Your task to perform on an android device: Search for "bose soundlink" on walmart, select the first entry, add it to the cart, then select checkout. Image 0: 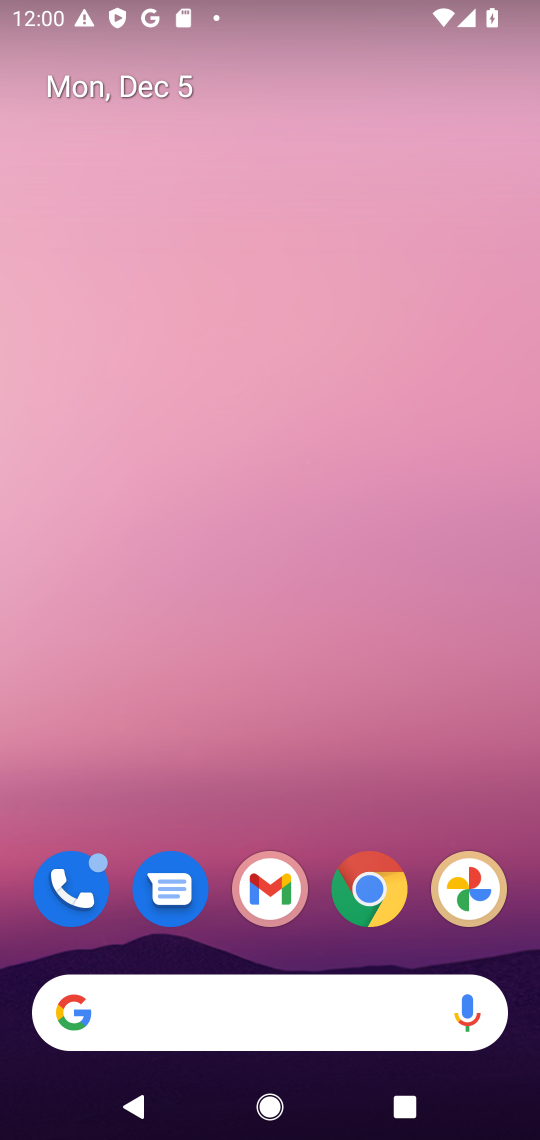
Step 0: click (371, 891)
Your task to perform on an android device: Search for "bose soundlink" on walmart, select the first entry, add it to the cart, then select checkout. Image 1: 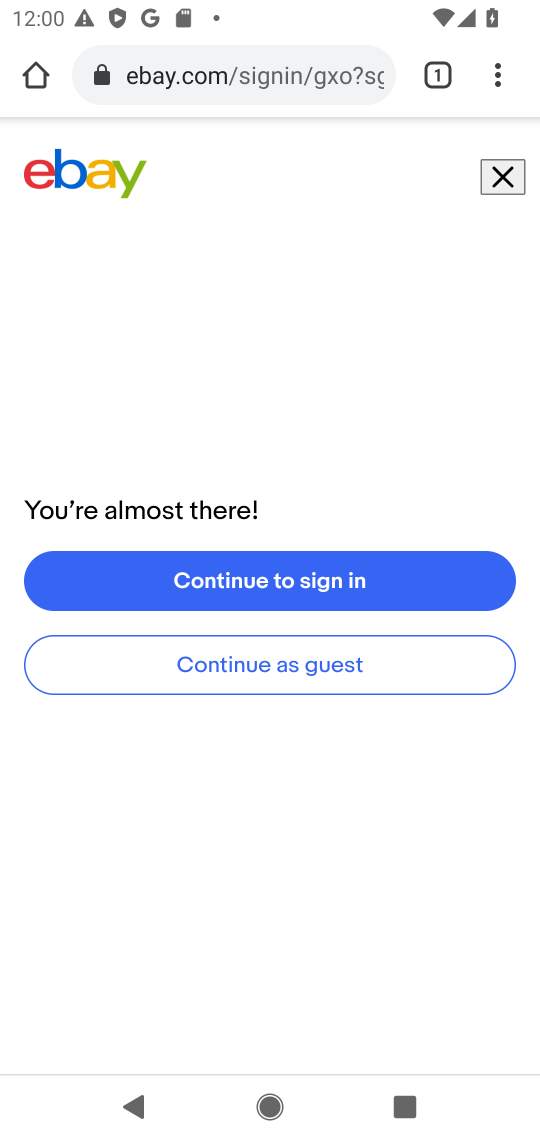
Step 1: click (306, 78)
Your task to perform on an android device: Search for "bose soundlink" on walmart, select the first entry, add it to the cart, then select checkout. Image 2: 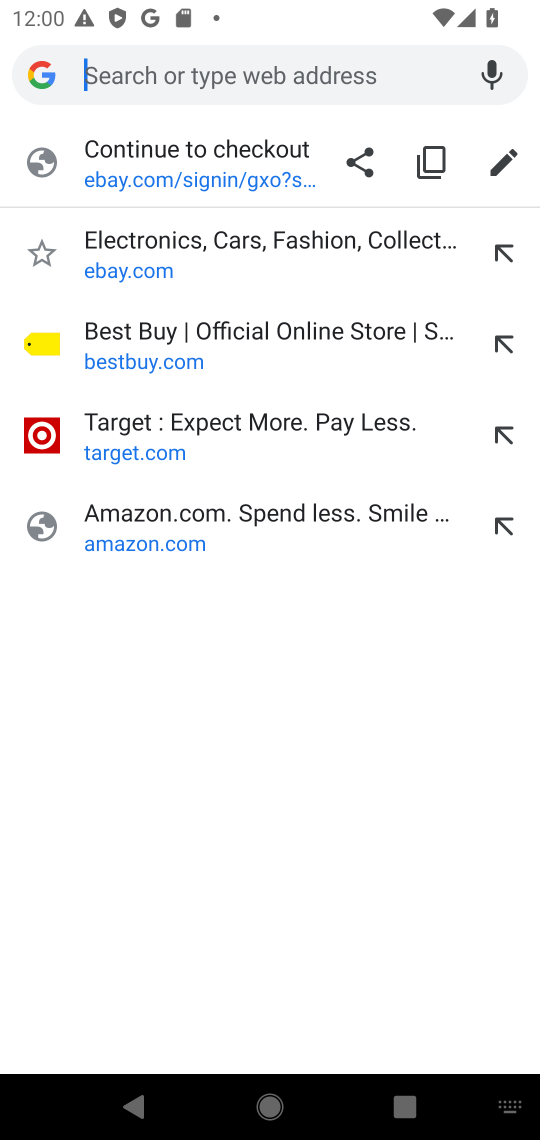
Step 2: type "walmart"
Your task to perform on an android device: Search for "bose soundlink" on walmart, select the first entry, add it to the cart, then select checkout. Image 3: 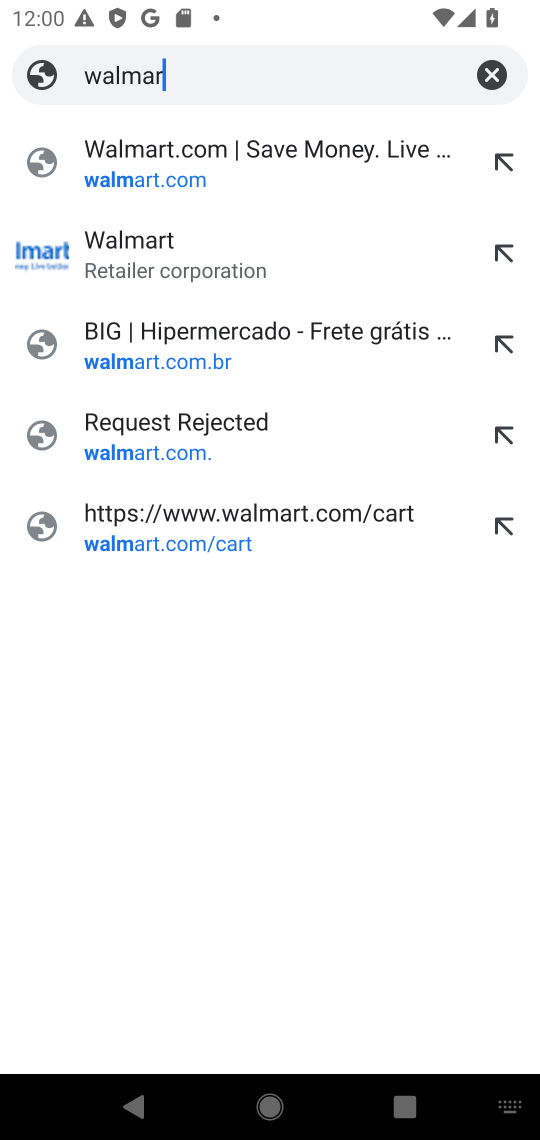
Step 3: press enter
Your task to perform on an android device: Search for "bose soundlink" on walmart, select the first entry, add it to the cart, then select checkout. Image 4: 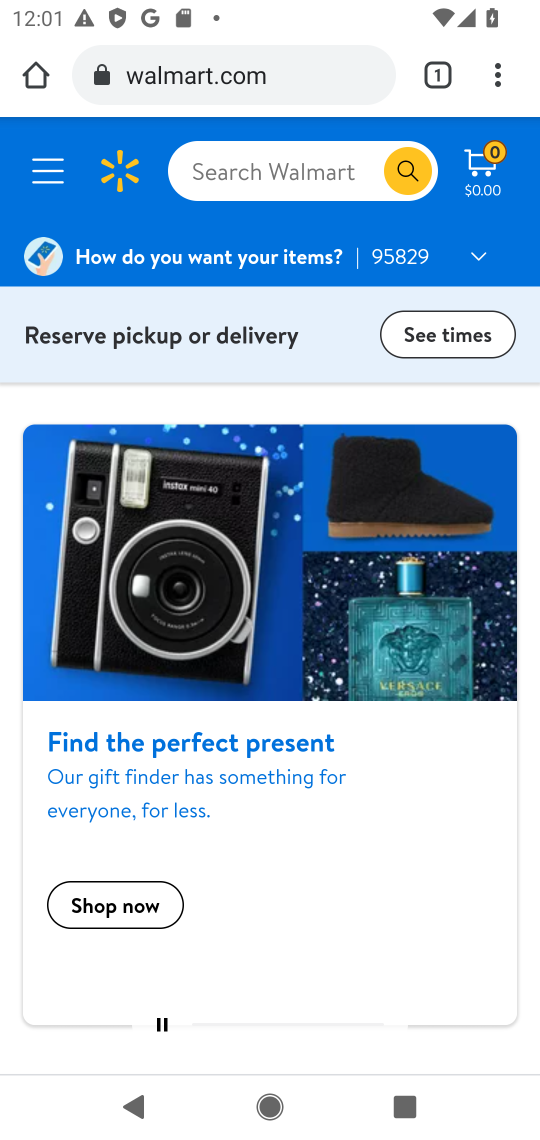
Step 4: click (308, 173)
Your task to perform on an android device: Search for "bose soundlink" on walmart, select the first entry, add it to the cart, then select checkout. Image 5: 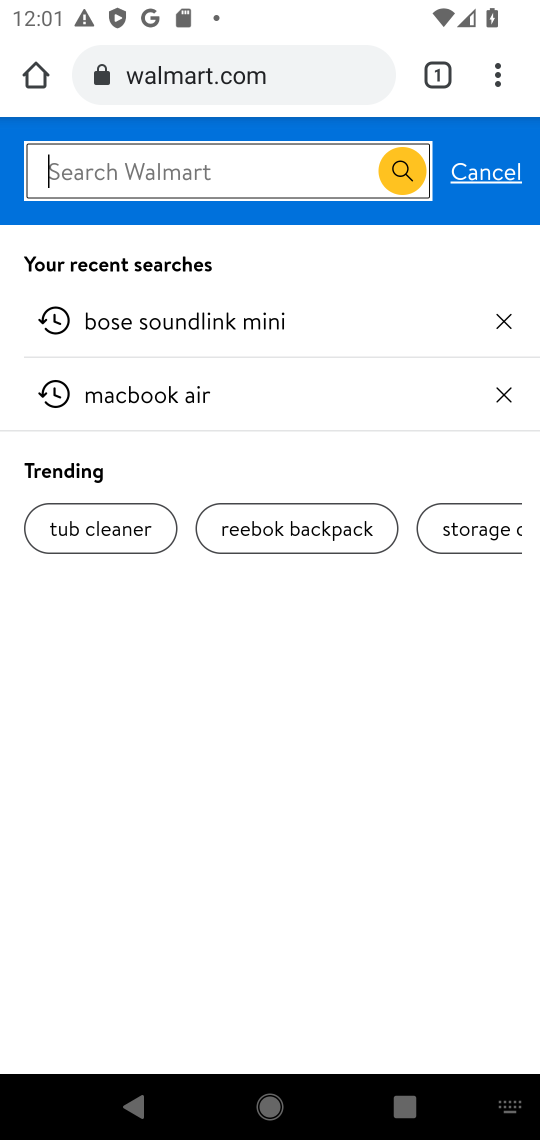
Step 5: type "bose soundlink"
Your task to perform on an android device: Search for "bose soundlink" on walmart, select the first entry, add it to the cart, then select checkout. Image 6: 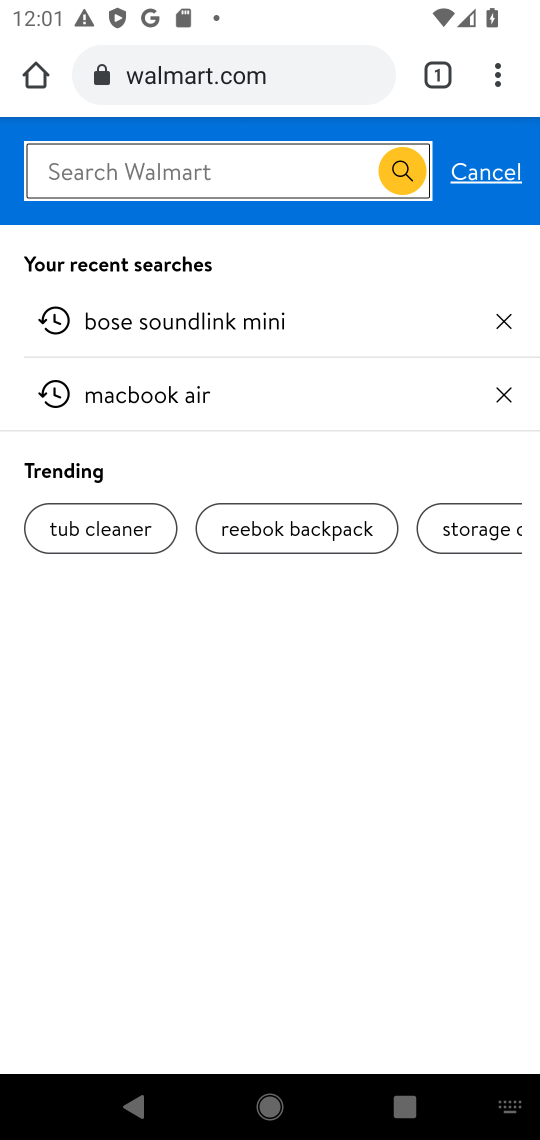
Step 6: press enter
Your task to perform on an android device: Search for "bose soundlink" on walmart, select the first entry, add it to the cart, then select checkout. Image 7: 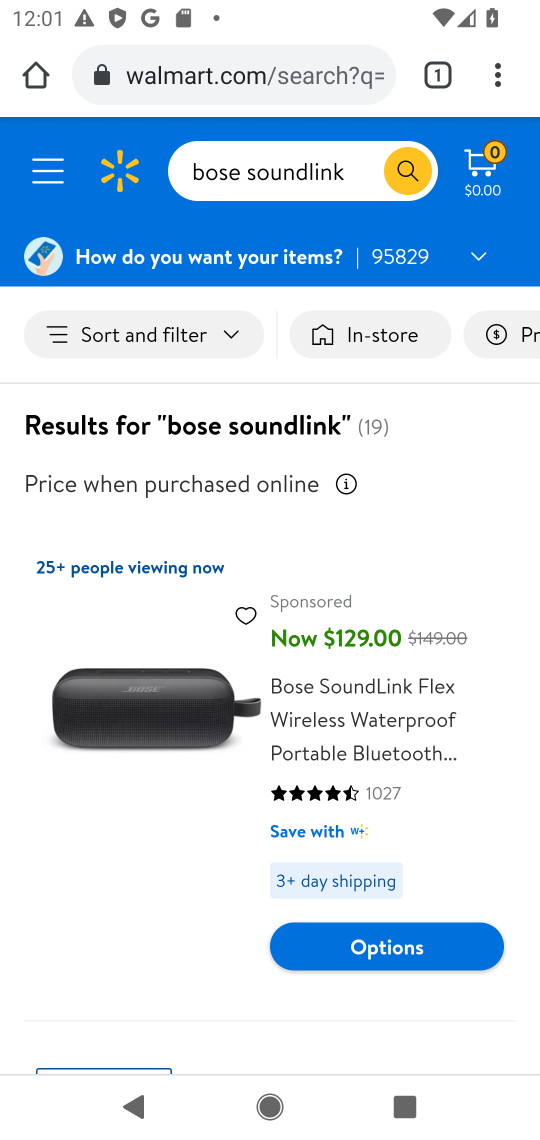
Step 7: click (138, 732)
Your task to perform on an android device: Search for "bose soundlink" on walmart, select the first entry, add it to the cart, then select checkout. Image 8: 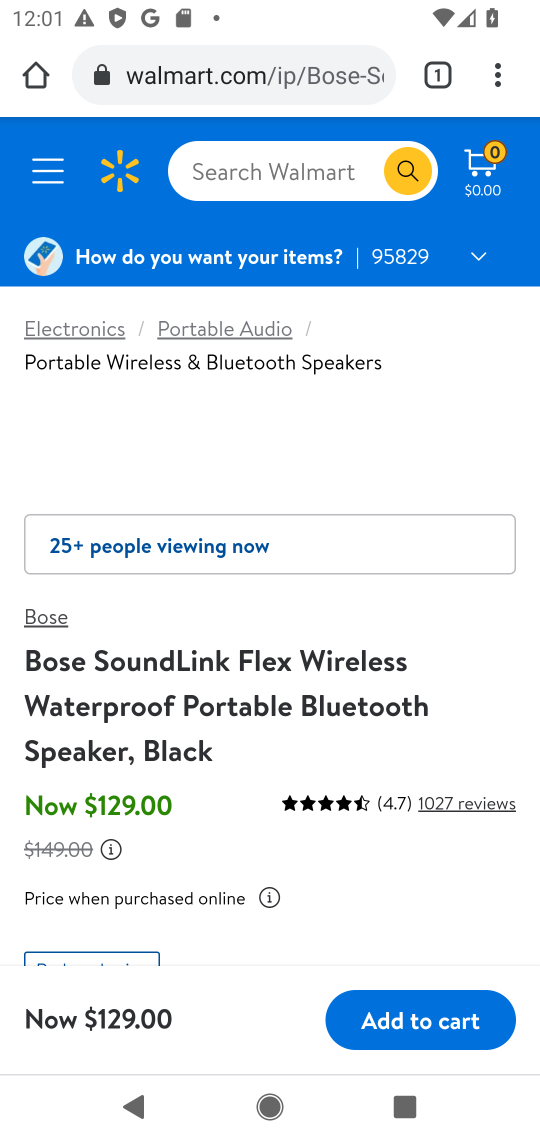
Step 8: click (442, 1005)
Your task to perform on an android device: Search for "bose soundlink" on walmart, select the first entry, add it to the cart, then select checkout. Image 9: 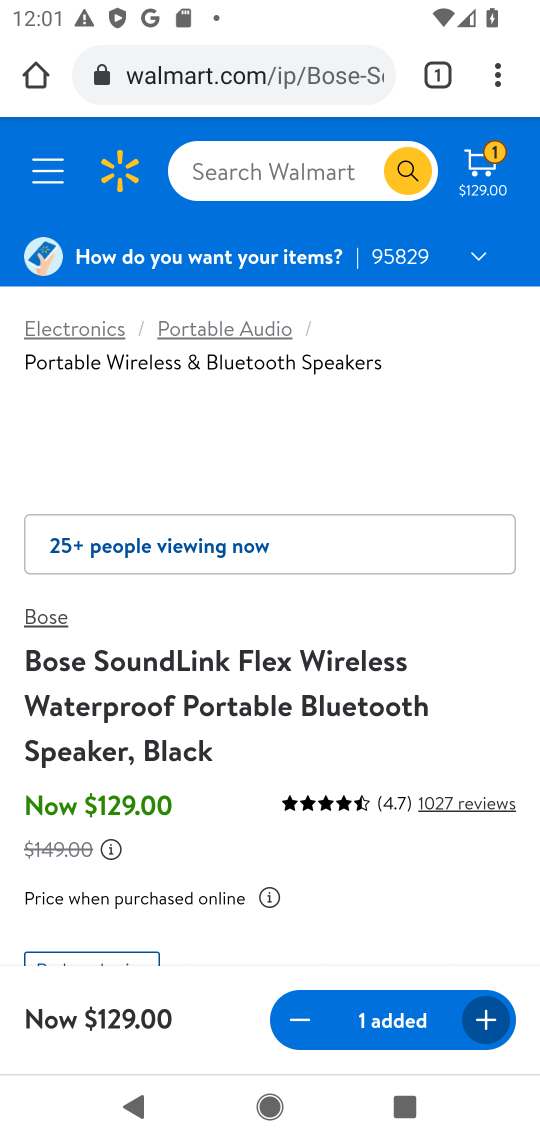
Step 9: click (495, 176)
Your task to perform on an android device: Search for "bose soundlink" on walmart, select the first entry, add it to the cart, then select checkout. Image 10: 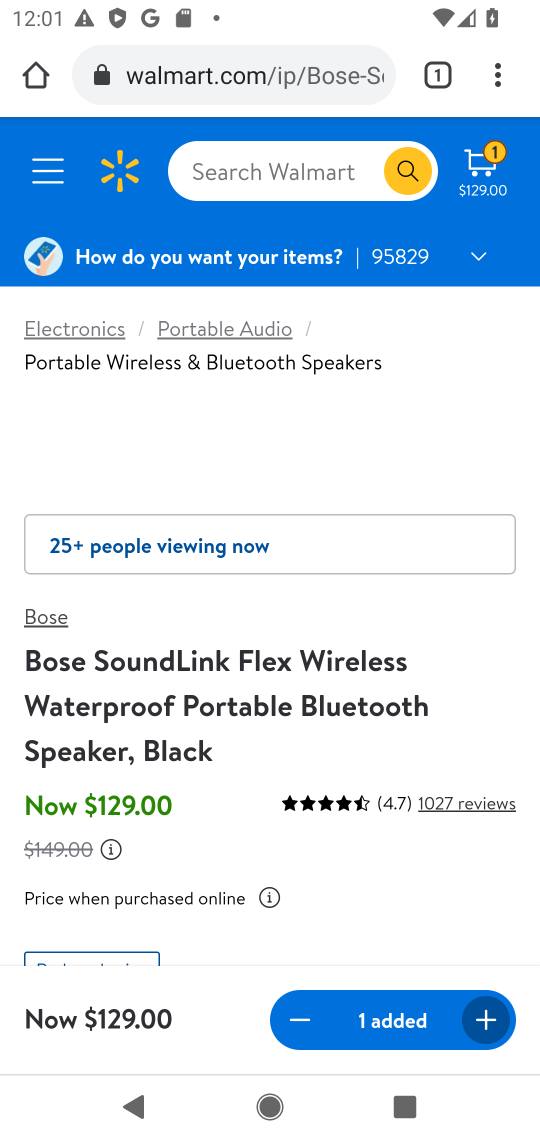
Step 10: click (483, 179)
Your task to perform on an android device: Search for "bose soundlink" on walmart, select the first entry, add it to the cart, then select checkout. Image 11: 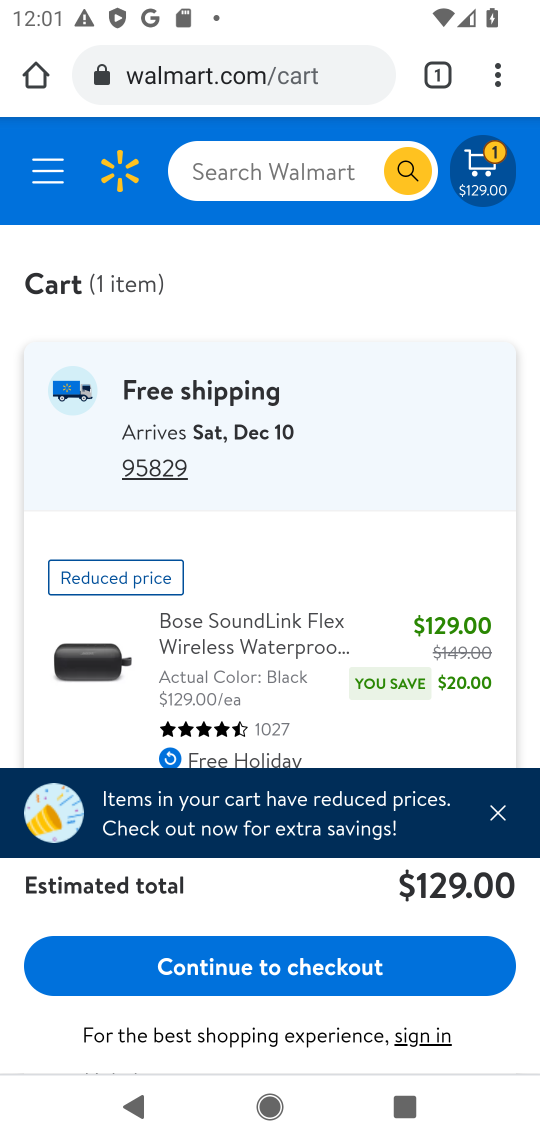
Step 11: click (280, 960)
Your task to perform on an android device: Search for "bose soundlink" on walmart, select the first entry, add it to the cart, then select checkout. Image 12: 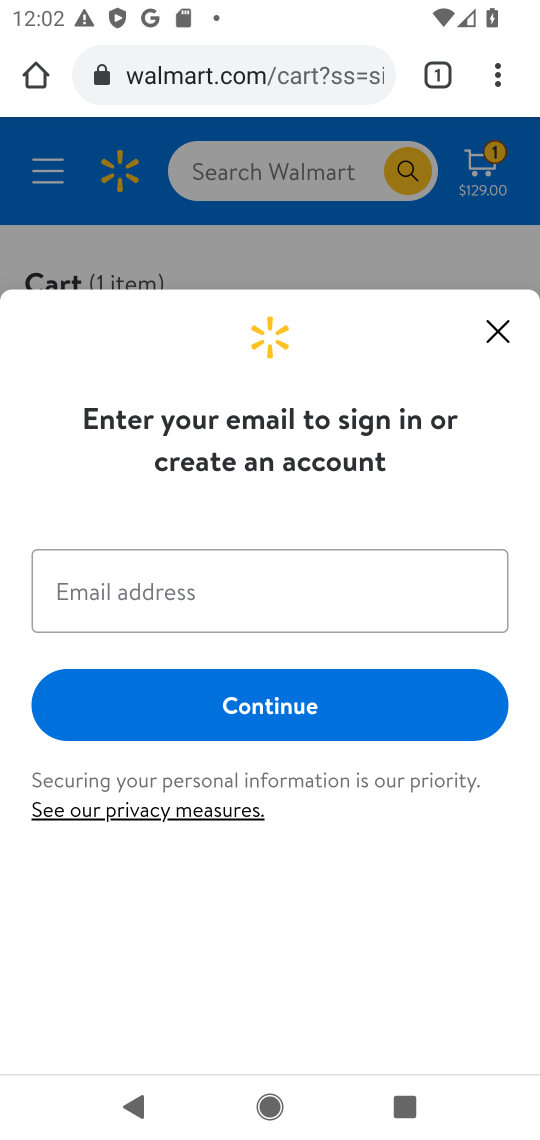
Step 12: task complete